Your task to perform on an android device: Open the calendar app, open the side menu, and click the "Day" option Image 0: 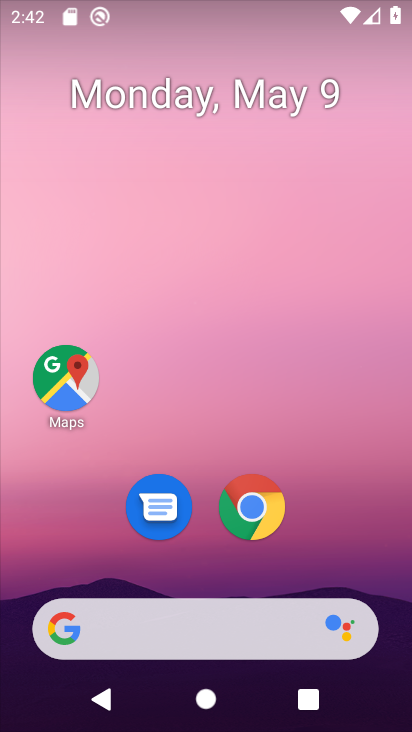
Step 0: drag from (204, 608) to (306, 176)
Your task to perform on an android device: Open the calendar app, open the side menu, and click the "Day" option Image 1: 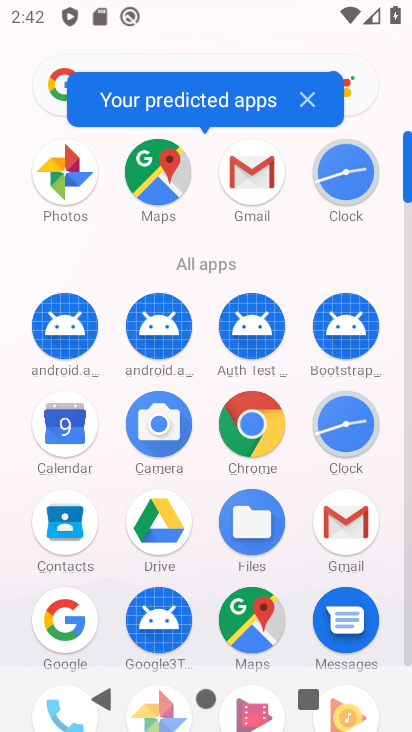
Step 1: click (62, 425)
Your task to perform on an android device: Open the calendar app, open the side menu, and click the "Day" option Image 2: 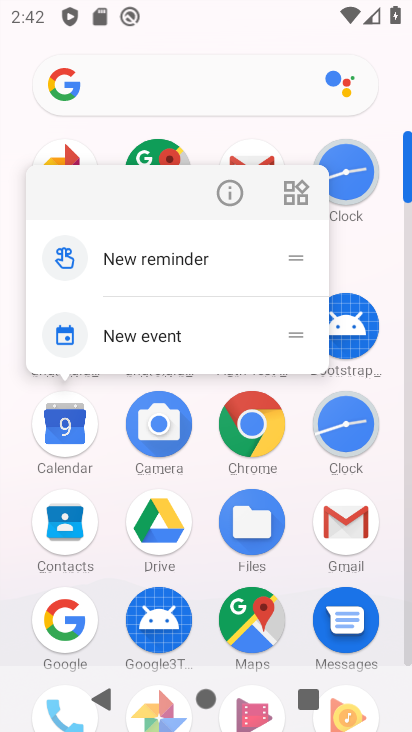
Step 2: click (62, 425)
Your task to perform on an android device: Open the calendar app, open the side menu, and click the "Day" option Image 3: 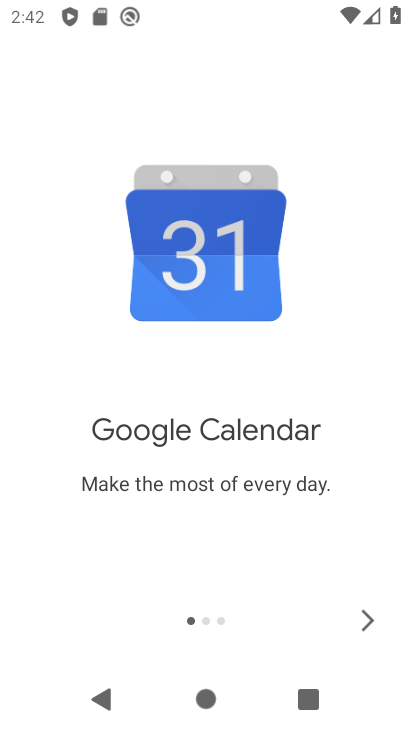
Step 3: click (360, 623)
Your task to perform on an android device: Open the calendar app, open the side menu, and click the "Day" option Image 4: 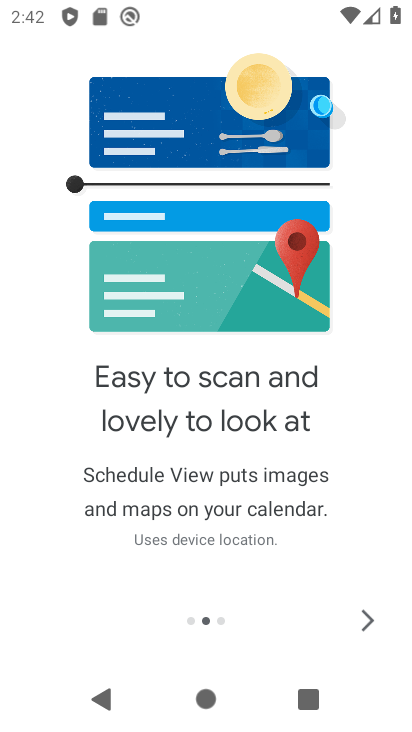
Step 4: click (360, 623)
Your task to perform on an android device: Open the calendar app, open the side menu, and click the "Day" option Image 5: 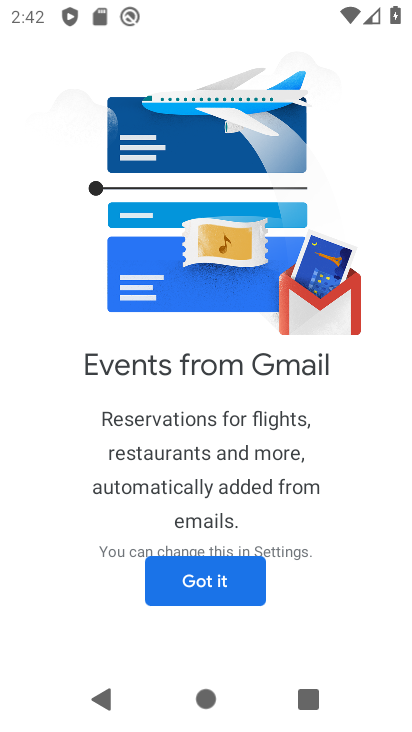
Step 5: click (248, 579)
Your task to perform on an android device: Open the calendar app, open the side menu, and click the "Day" option Image 6: 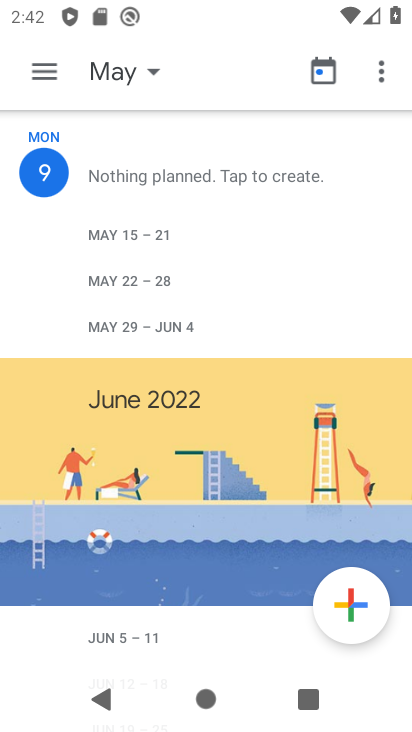
Step 6: click (53, 77)
Your task to perform on an android device: Open the calendar app, open the side menu, and click the "Day" option Image 7: 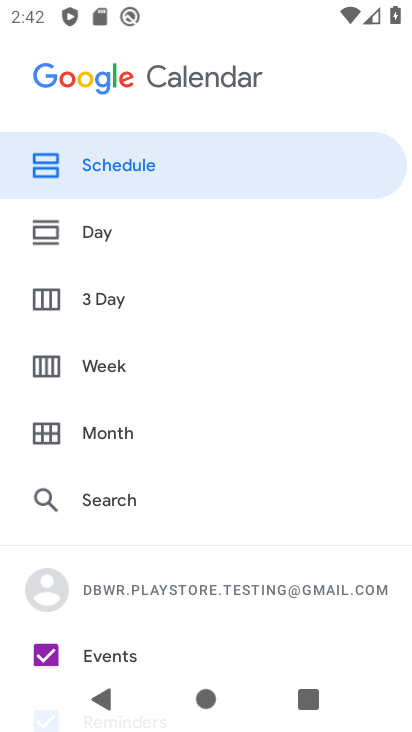
Step 7: click (87, 243)
Your task to perform on an android device: Open the calendar app, open the side menu, and click the "Day" option Image 8: 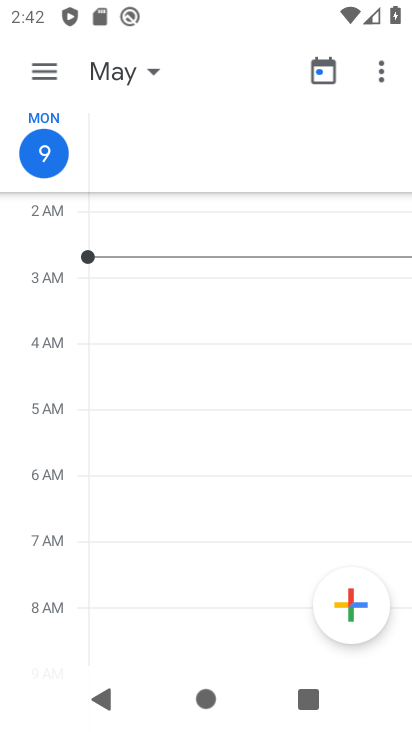
Step 8: task complete